Your task to perform on an android device: find photos in the google photos app Image 0: 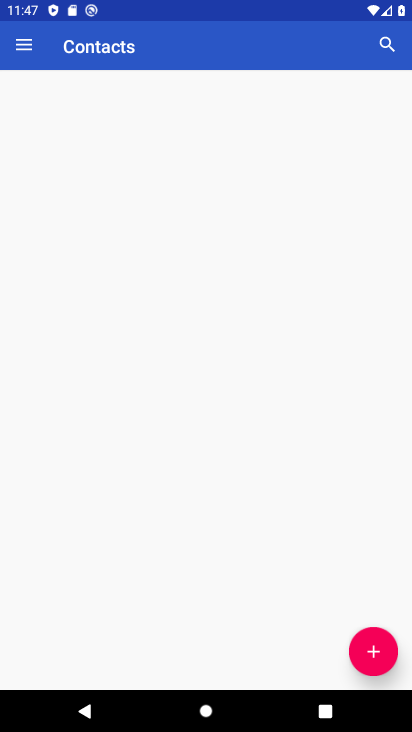
Step 0: press home button
Your task to perform on an android device: find photos in the google photos app Image 1: 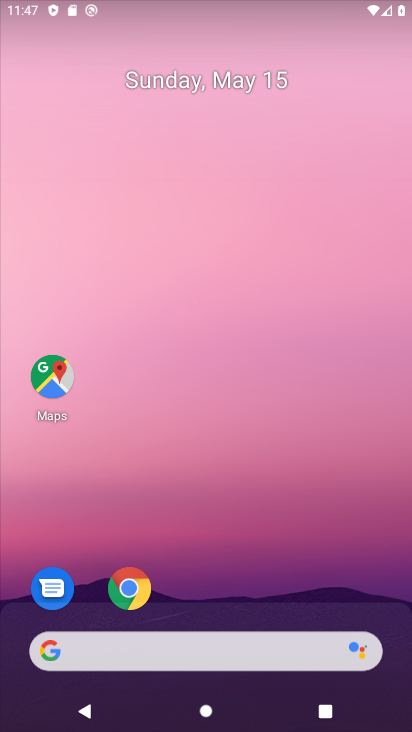
Step 1: drag from (307, 540) to (319, 54)
Your task to perform on an android device: find photos in the google photos app Image 2: 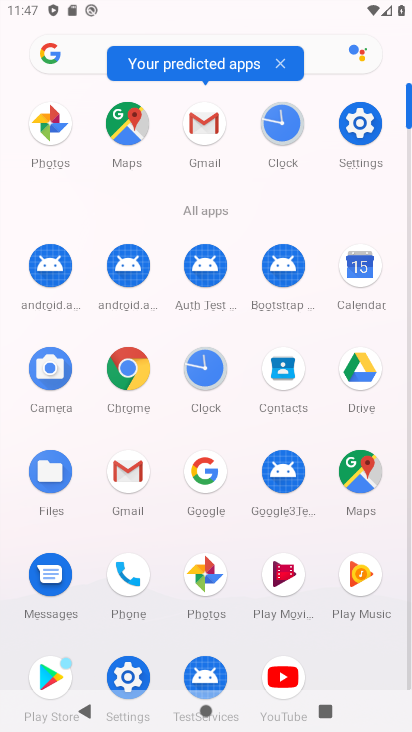
Step 2: click (52, 118)
Your task to perform on an android device: find photos in the google photos app Image 3: 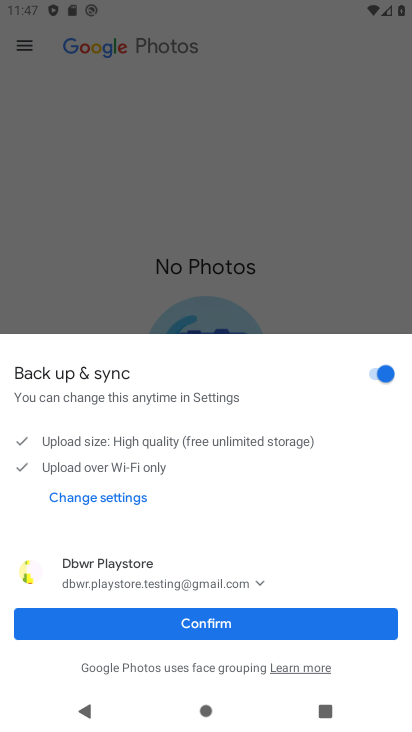
Step 3: click (200, 617)
Your task to perform on an android device: find photos in the google photos app Image 4: 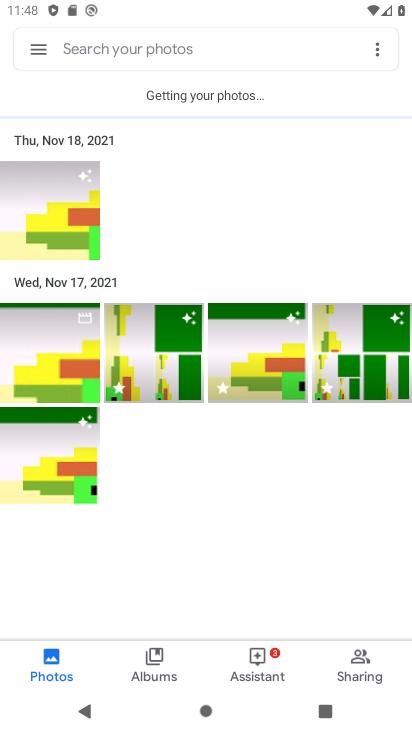
Step 4: click (31, 228)
Your task to perform on an android device: find photos in the google photos app Image 5: 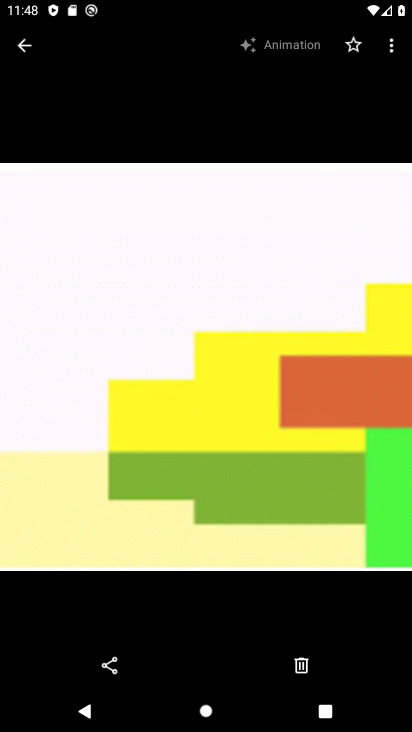
Step 5: task complete